Your task to perform on an android device: Open the web browser Image 0: 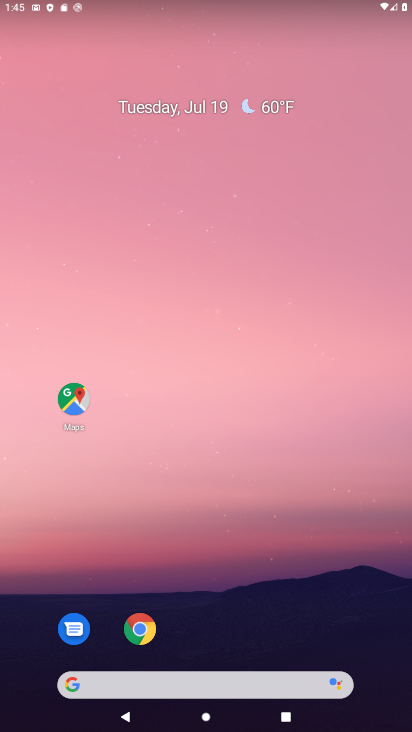
Step 0: click (137, 631)
Your task to perform on an android device: Open the web browser Image 1: 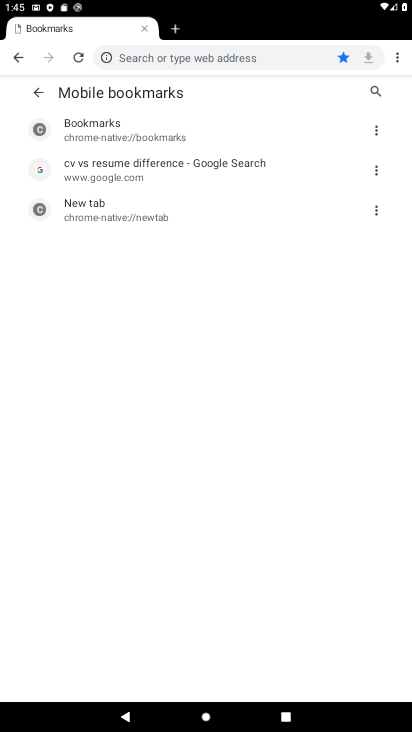
Step 1: task complete